Your task to perform on an android device: What's the news in Malaysia? Image 0: 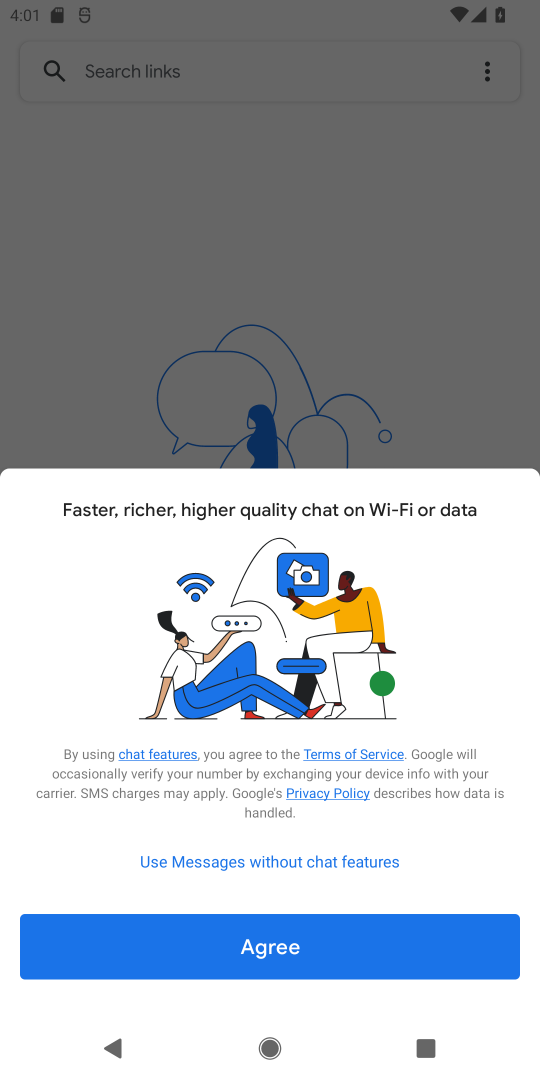
Step 0: click (176, 935)
Your task to perform on an android device: What's the news in Malaysia? Image 1: 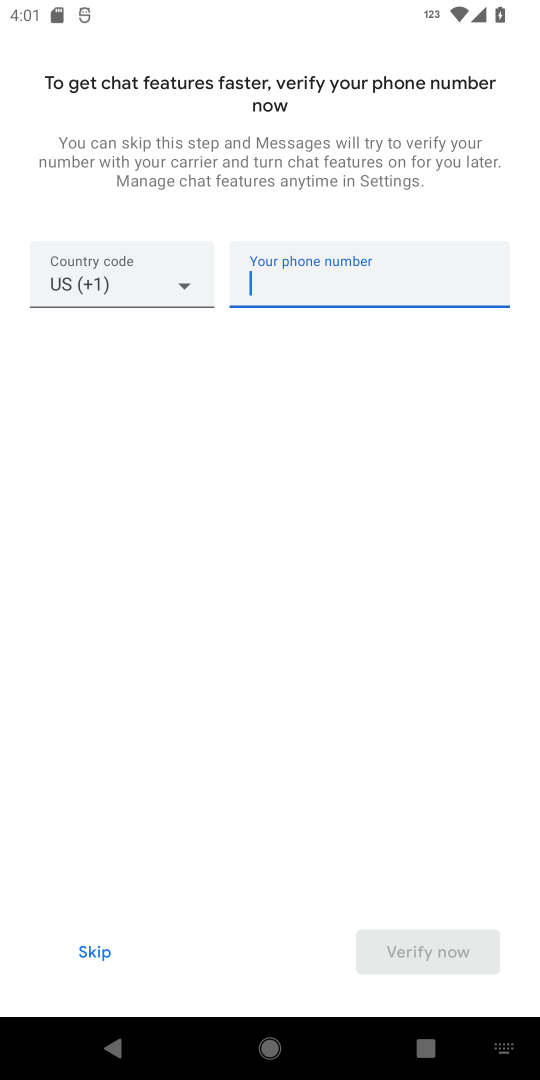
Step 1: click (87, 949)
Your task to perform on an android device: What's the news in Malaysia? Image 2: 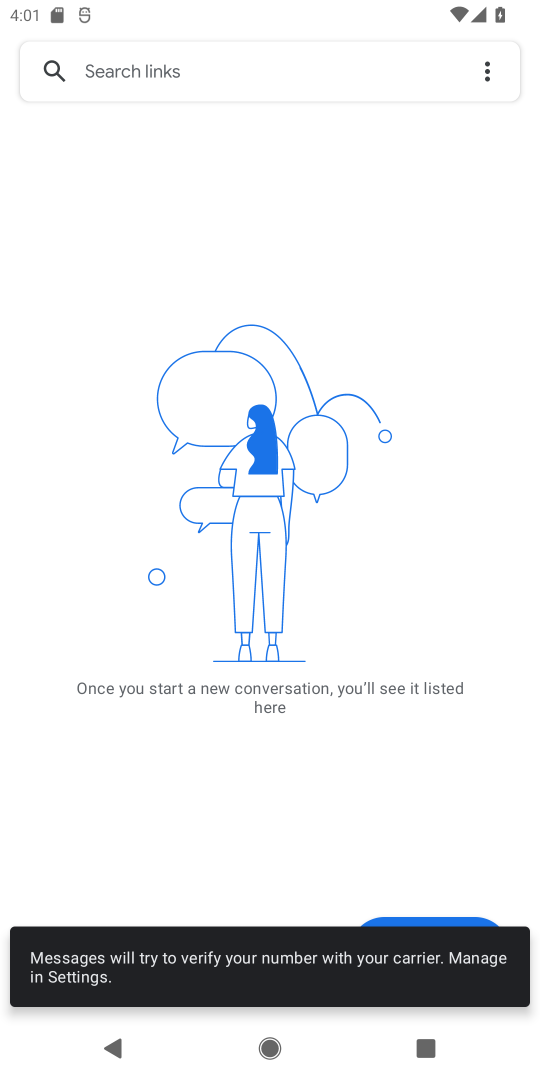
Step 2: press home button
Your task to perform on an android device: What's the news in Malaysia? Image 3: 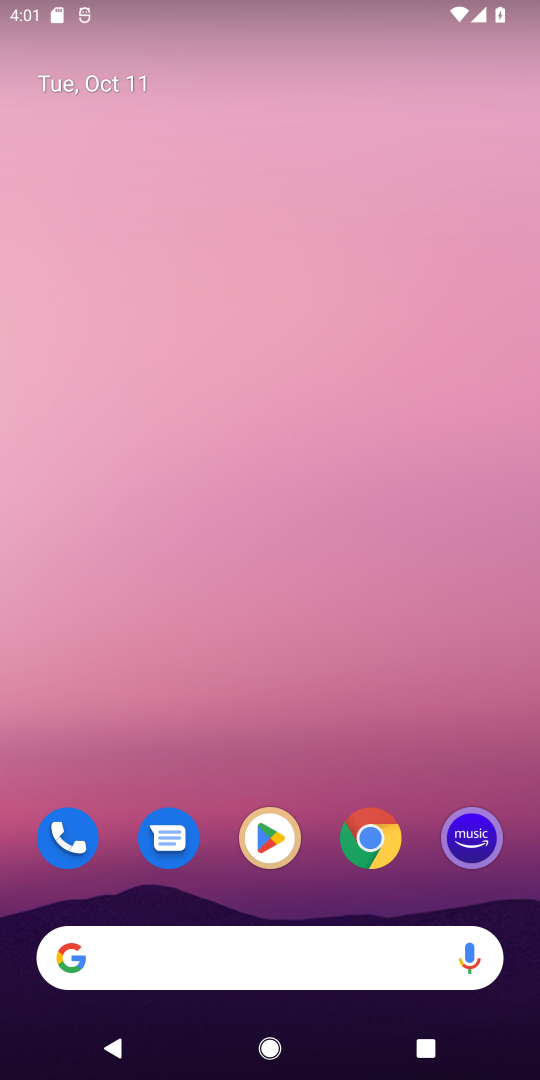
Step 3: click (370, 833)
Your task to perform on an android device: What's the news in Malaysia? Image 4: 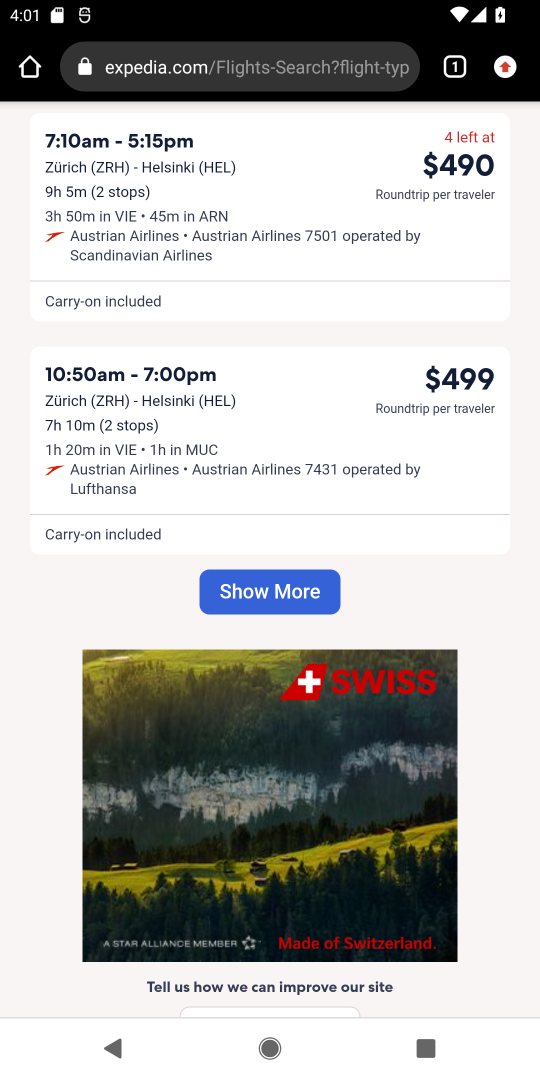
Step 4: click (156, 75)
Your task to perform on an android device: What's the news in Malaysia? Image 5: 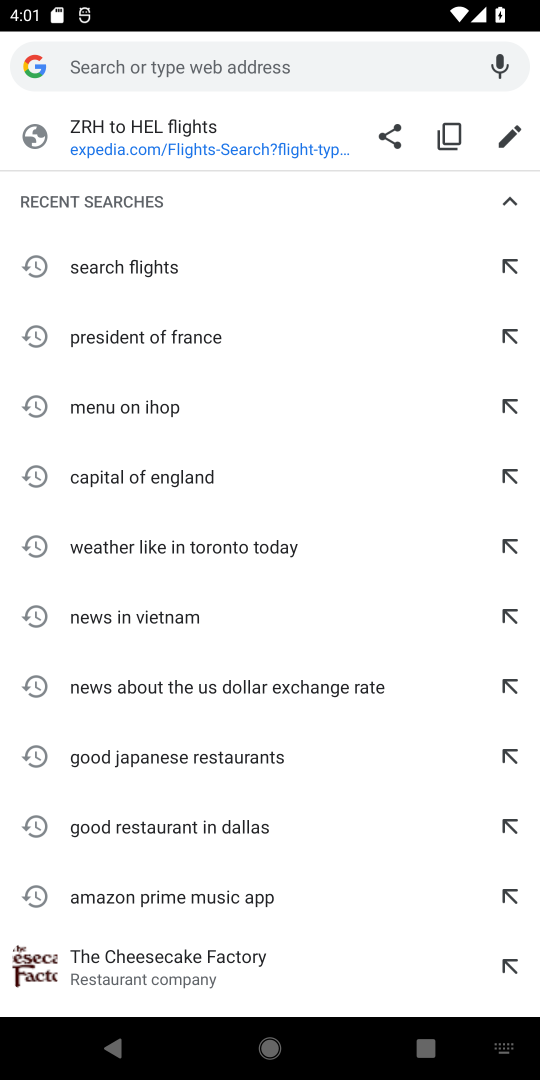
Step 5: type "news in malaysia"
Your task to perform on an android device: What's the news in Malaysia? Image 6: 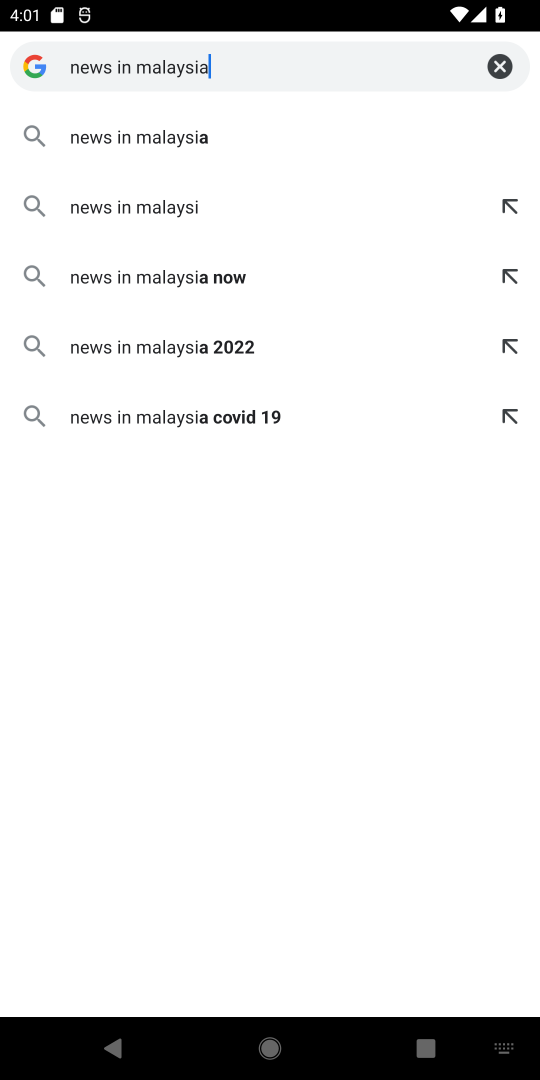
Step 6: type ""
Your task to perform on an android device: What's the news in Malaysia? Image 7: 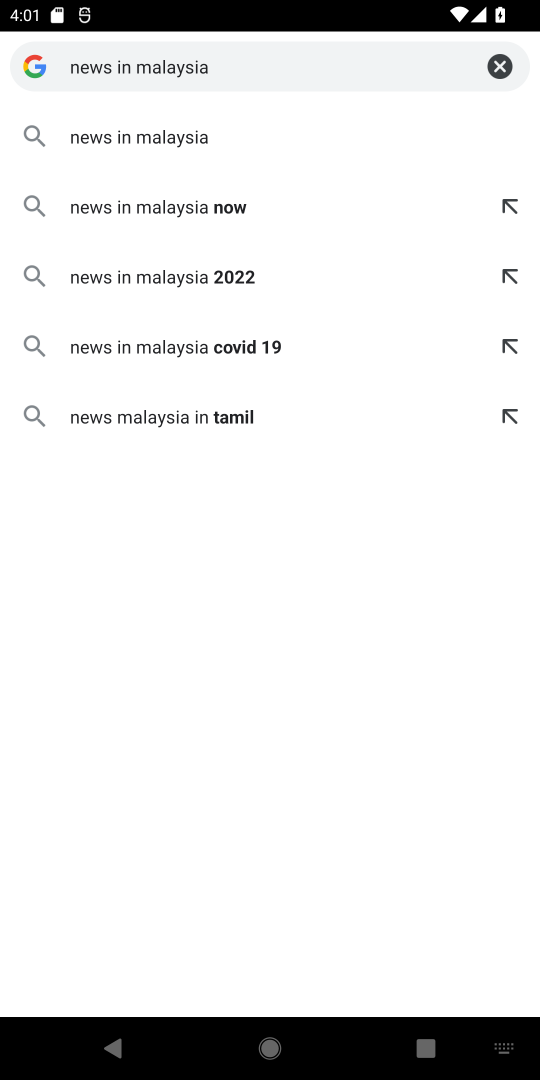
Step 7: click (200, 144)
Your task to perform on an android device: What's the news in Malaysia? Image 8: 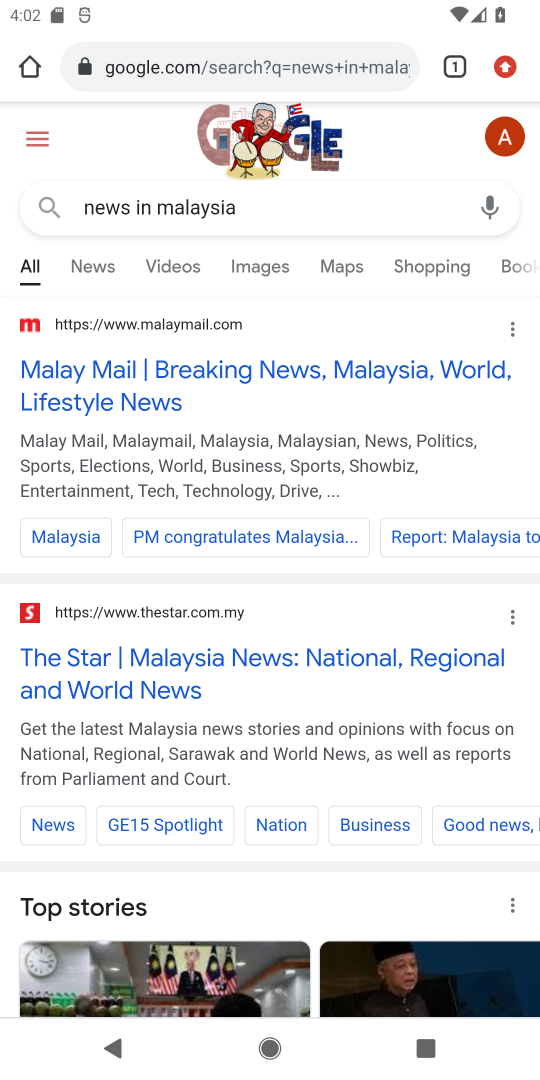
Step 8: click (170, 657)
Your task to perform on an android device: What's the news in Malaysia? Image 9: 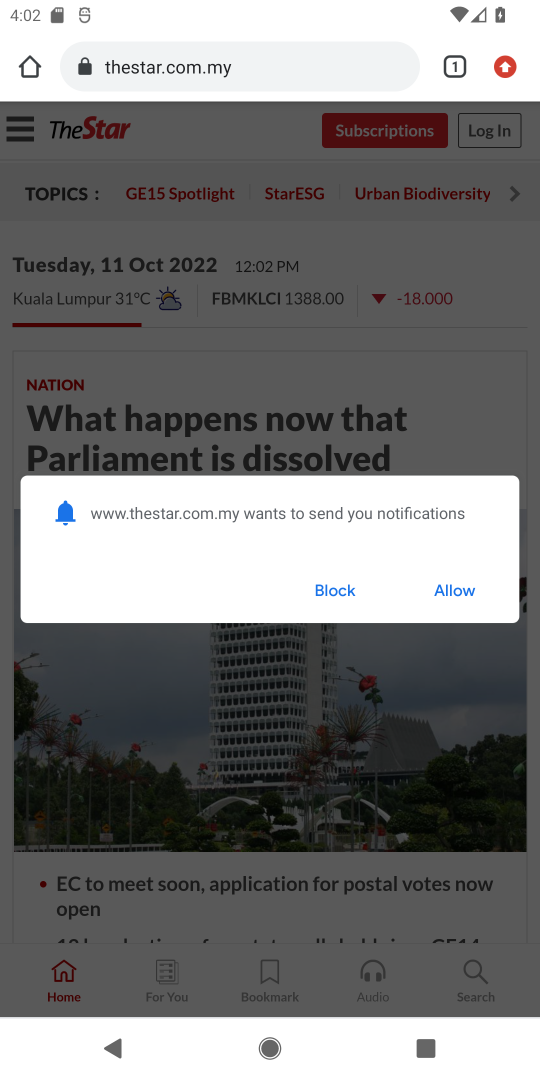
Step 9: click (335, 584)
Your task to perform on an android device: What's the news in Malaysia? Image 10: 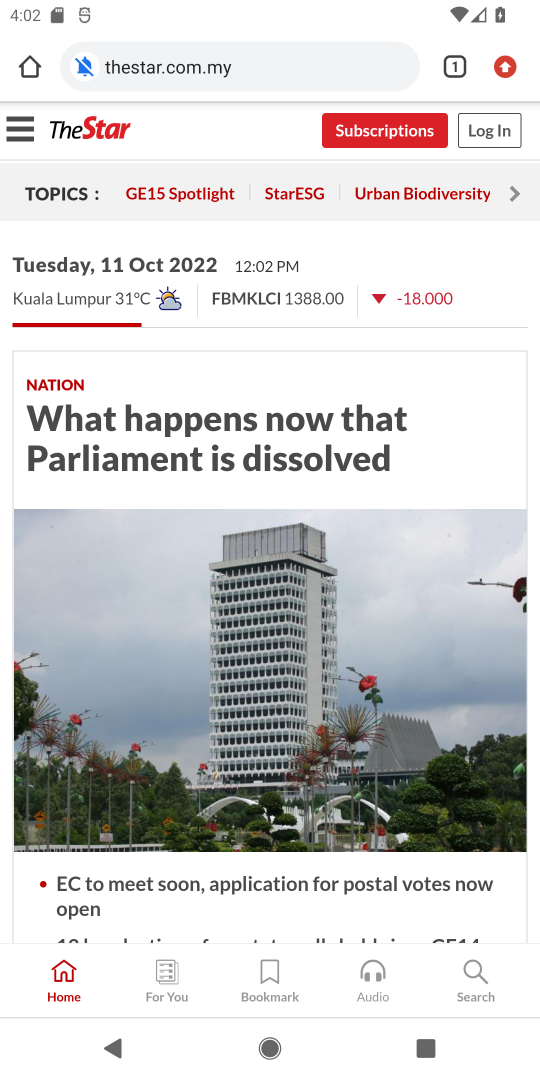
Step 10: drag from (227, 751) to (286, 220)
Your task to perform on an android device: What's the news in Malaysia? Image 11: 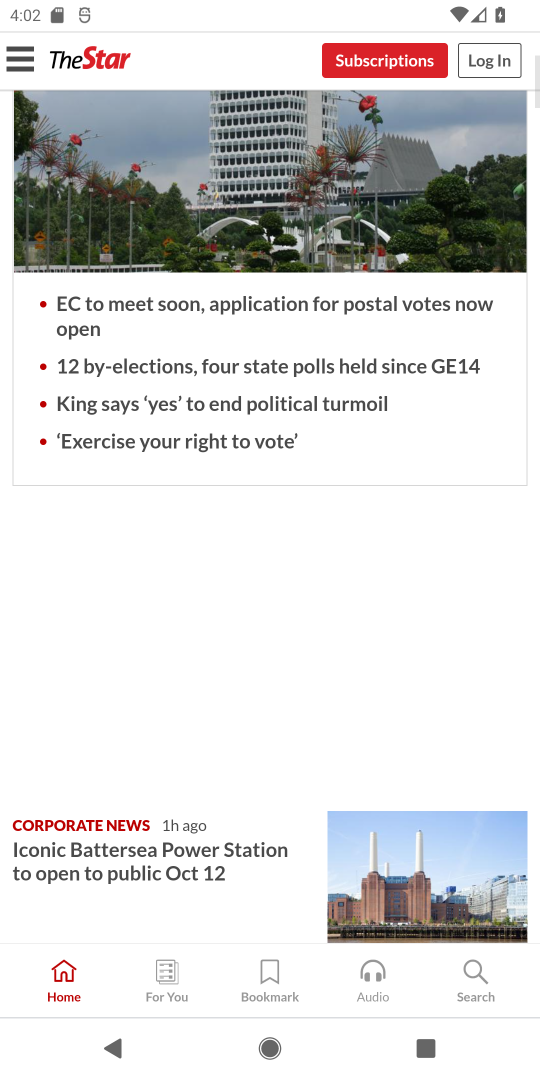
Step 11: drag from (212, 646) to (297, 265)
Your task to perform on an android device: What's the news in Malaysia? Image 12: 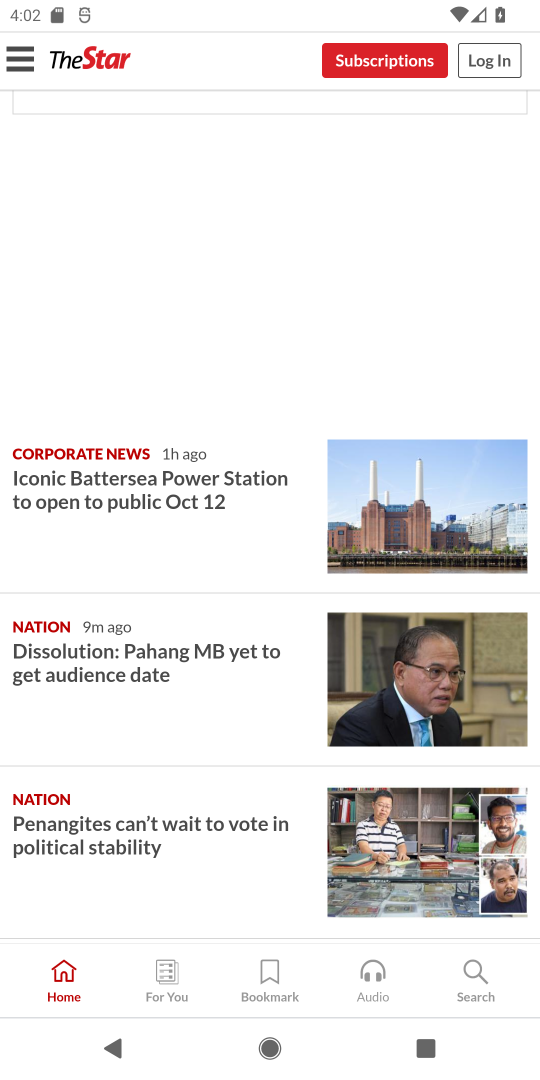
Step 12: drag from (212, 705) to (263, 307)
Your task to perform on an android device: What's the news in Malaysia? Image 13: 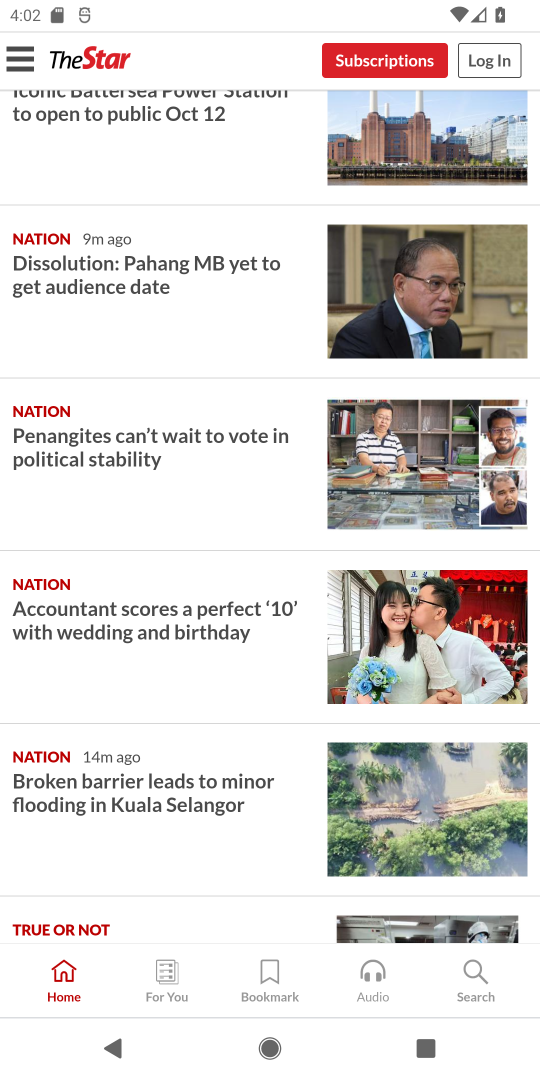
Step 13: drag from (217, 708) to (248, 371)
Your task to perform on an android device: What's the news in Malaysia? Image 14: 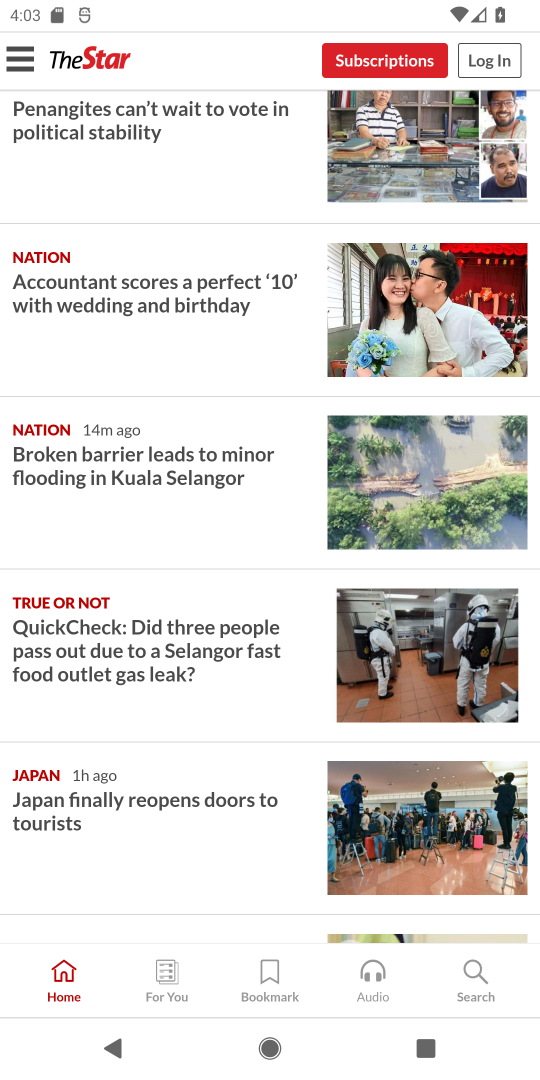
Step 14: drag from (207, 670) to (237, 95)
Your task to perform on an android device: What's the news in Malaysia? Image 15: 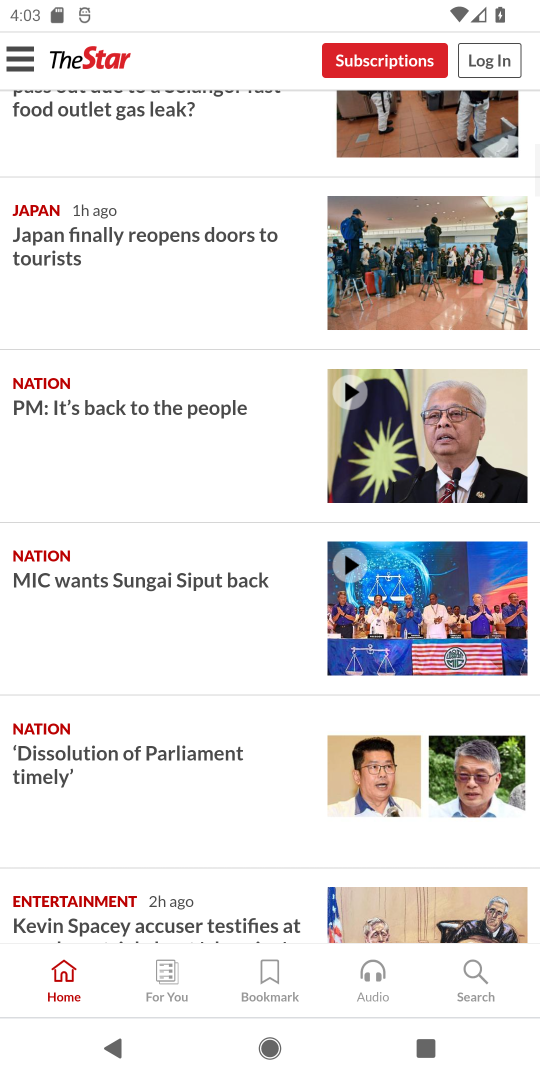
Step 15: drag from (205, 699) to (233, 249)
Your task to perform on an android device: What's the news in Malaysia? Image 16: 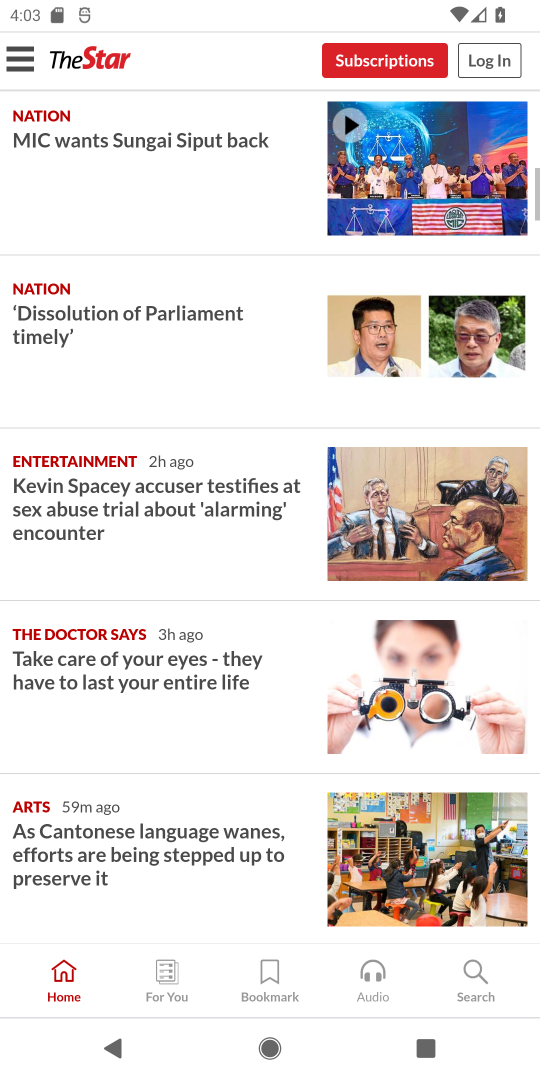
Step 16: drag from (201, 875) to (247, 318)
Your task to perform on an android device: What's the news in Malaysia? Image 17: 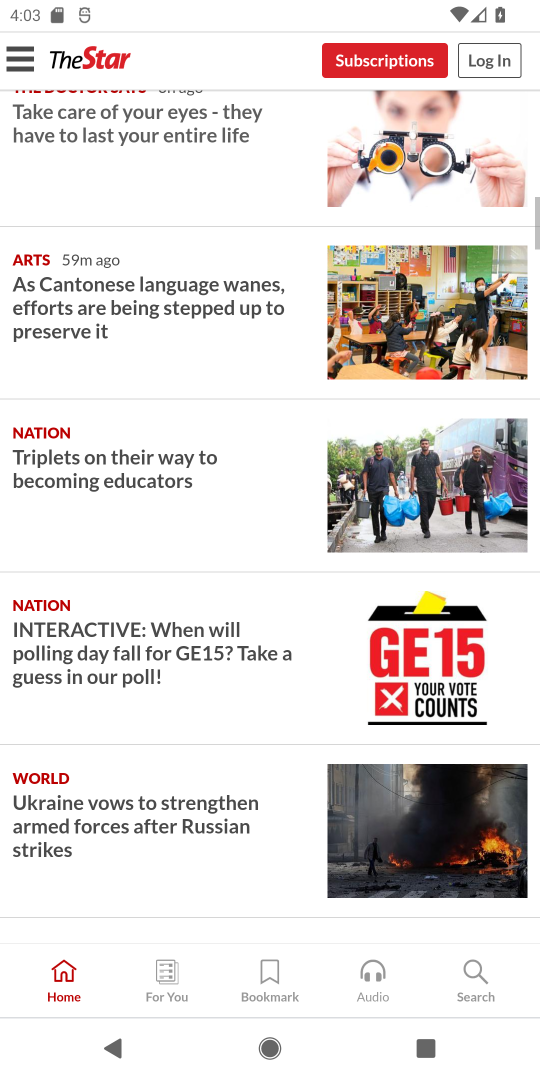
Step 17: drag from (213, 862) to (245, 210)
Your task to perform on an android device: What's the news in Malaysia? Image 18: 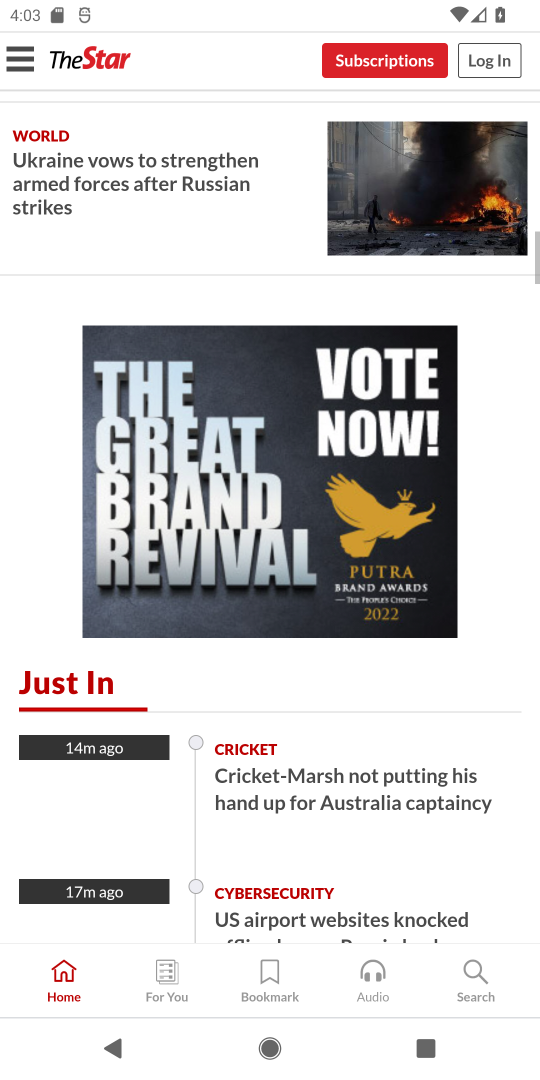
Step 18: drag from (116, 659) to (150, 340)
Your task to perform on an android device: What's the news in Malaysia? Image 19: 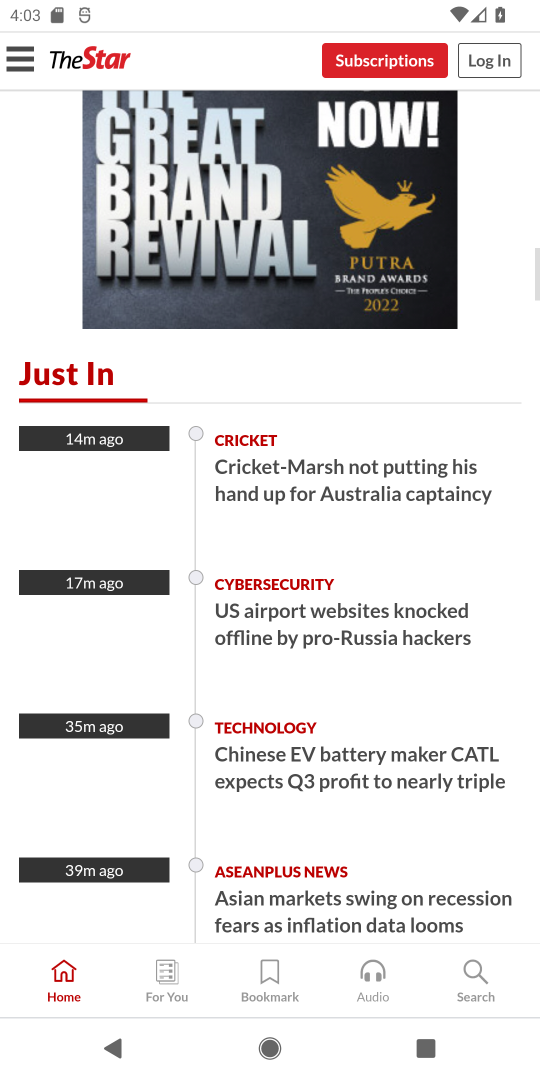
Step 19: drag from (255, 631) to (268, 547)
Your task to perform on an android device: What's the news in Malaysia? Image 20: 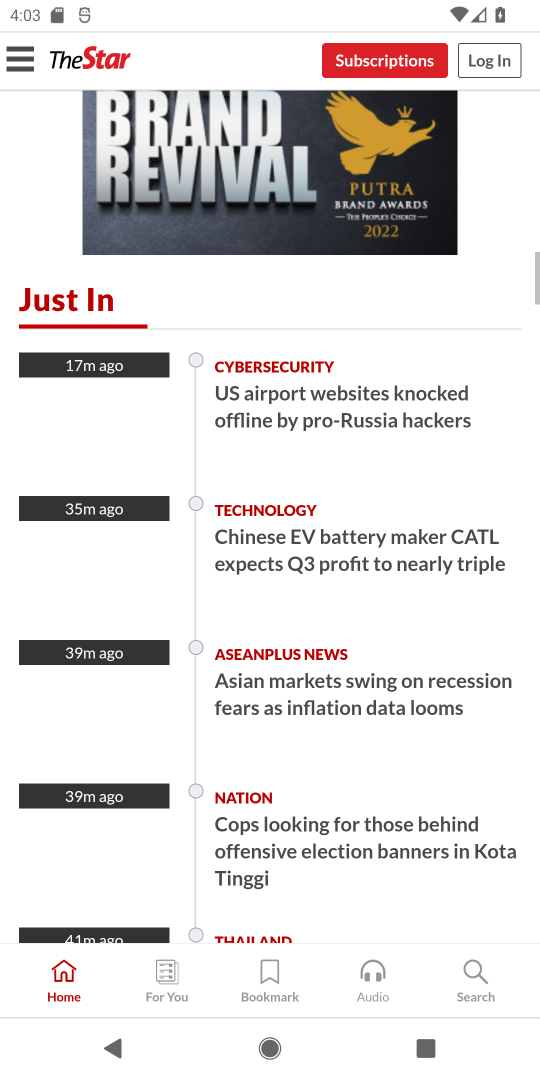
Step 20: drag from (329, 536) to (378, 1074)
Your task to perform on an android device: What's the news in Malaysia? Image 21: 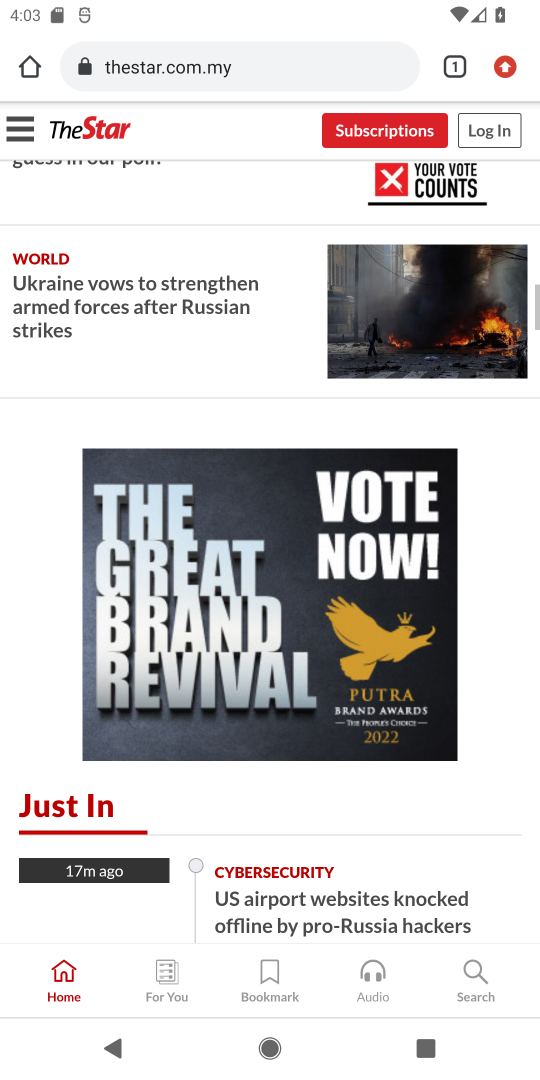
Step 21: drag from (351, 868) to (516, 1063)
Your task to perform on an android device: What's the news in Malaysia? Image 22: 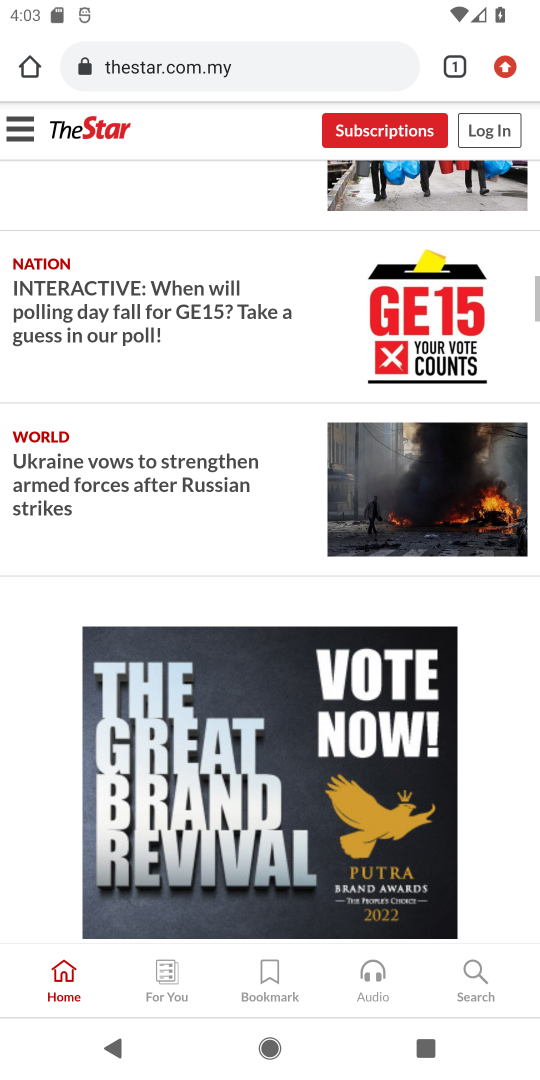
Step 22: drag from (368, 566) to (519, 1006)
Your task to perform on an android device: What's the news in Malaysia? Image 23: 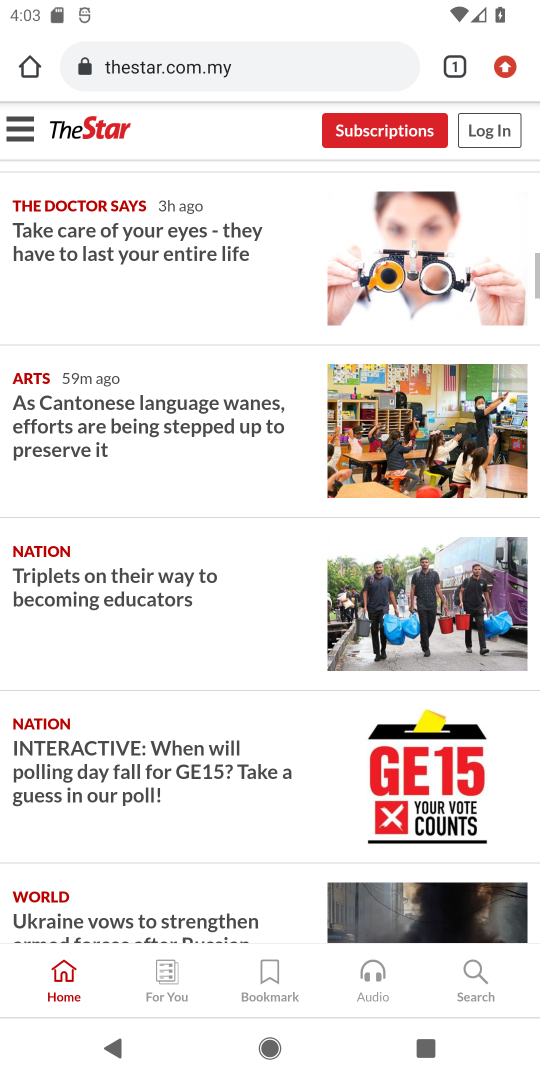
Step 23: drag from (220, 593) to (297, 831)
Your task to perform on an android device: What's the news in Malaysia? Image 24: 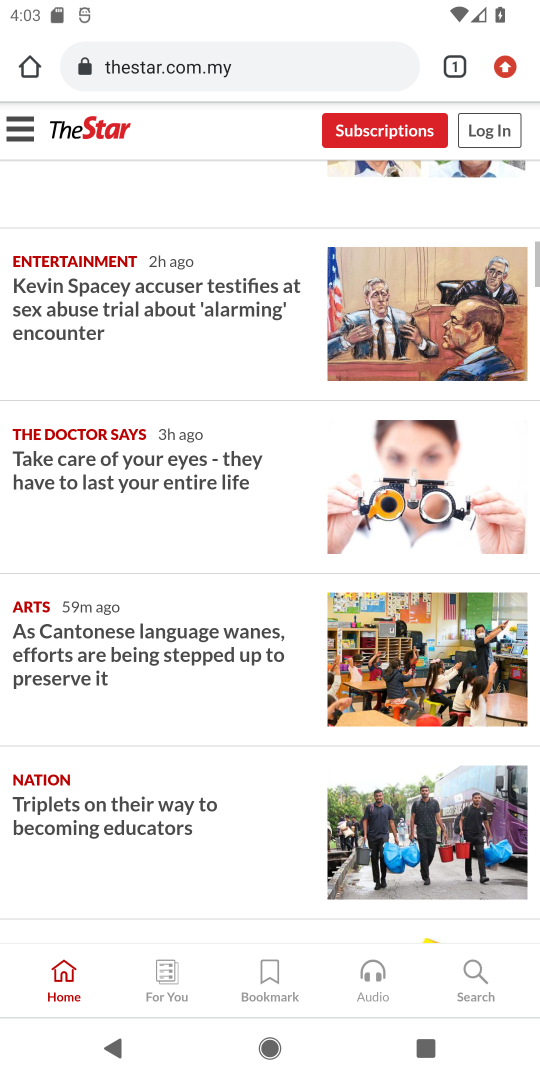
Step 24: drag from (283, 688) to (344, 854)
Your task to perform on an android device: What's the news in Malaysia? Image 25: 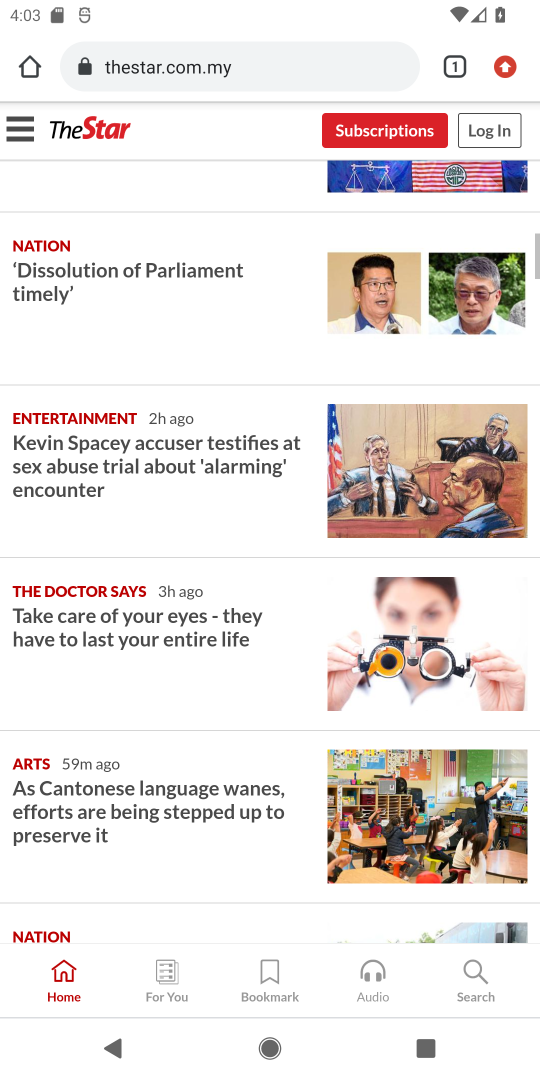
Step 25: drag from (214, 425) to (373, 997)
Your task to perform on an android device: What's the news in Malaysia? Image 26: 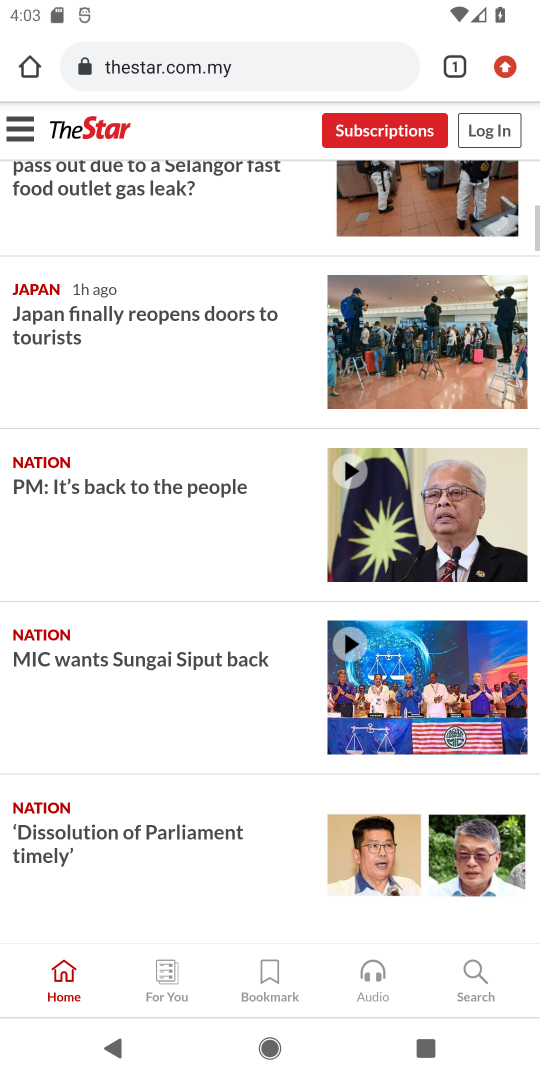
Step 26: drag from (57, 251) to (210, 668)
Your task to perform on an android device: What's the news in Malaysia? Image 27: 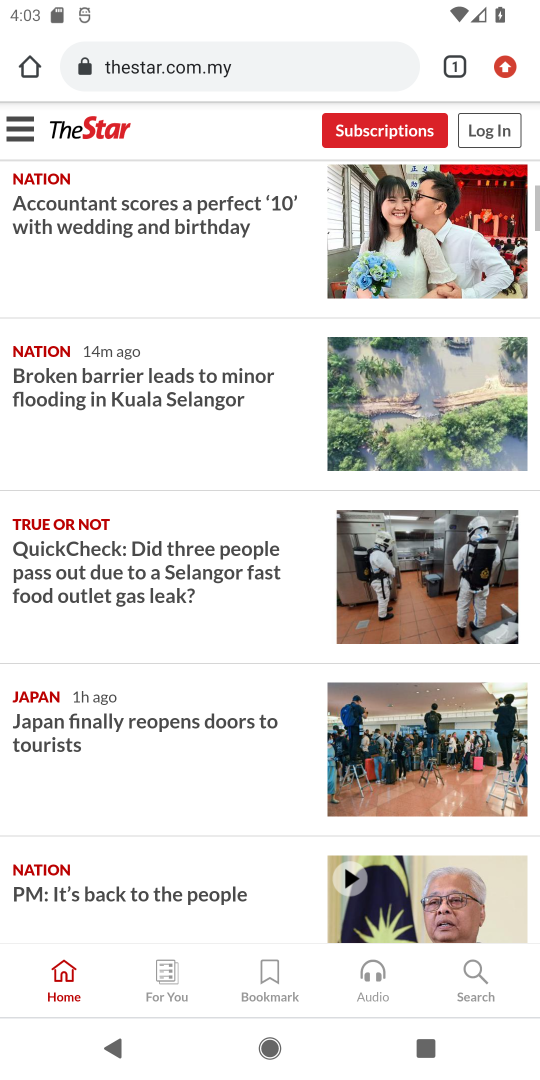
Step 27: drag from (219, 555) to (276, 864)
Your task to perform on an android device: What's the news in Malaysia? Image 28: 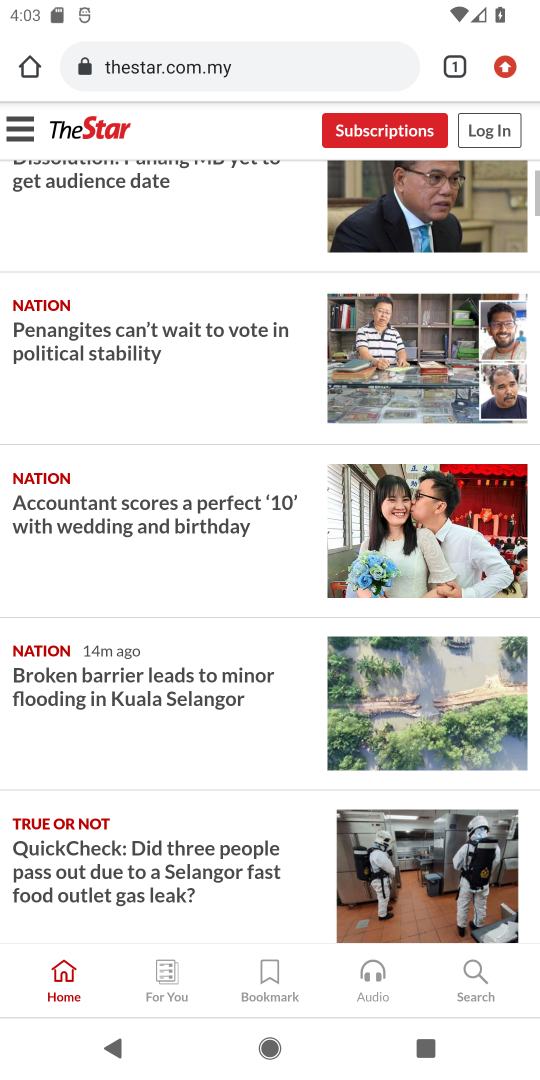
Step 28: drag from (139, 450) to (232, 864)
Your task to perform on an android device: What's the news in Malaysia? Image 29: 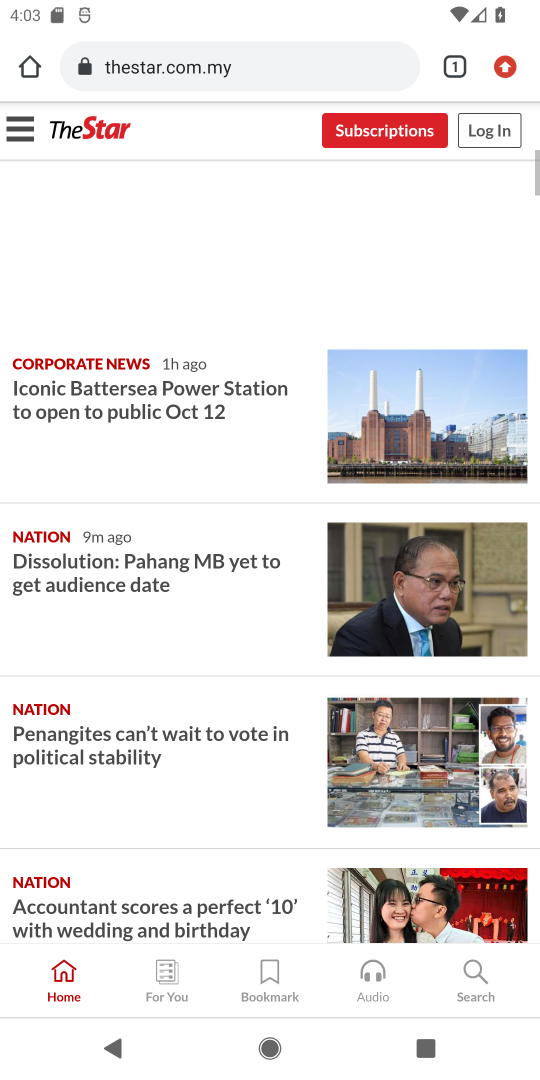
Step 29: drag from (167, 524) to (239, 906)
Your task to perform on an android device: What's the news in Malaysia? Image 30: 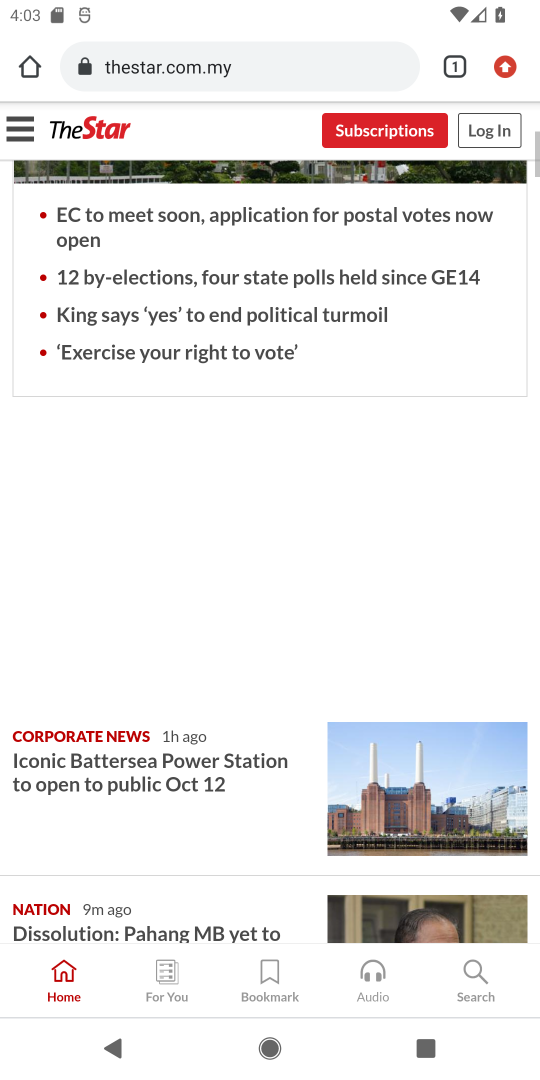
Step 30: drag from (29, 303) to (169, 1007)
Your task to perform on an android device: What's the news in Malaysia? Image 31: 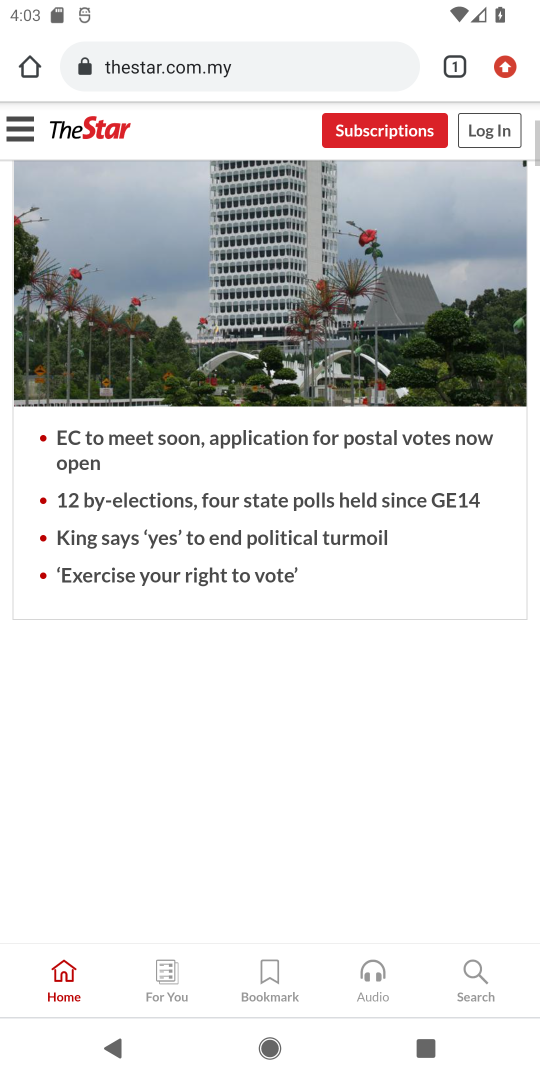
Step 31: drag from (132, 244) to (156, 910)
Your task to perform on an android device: What's the news in Malaysia? Image 32: 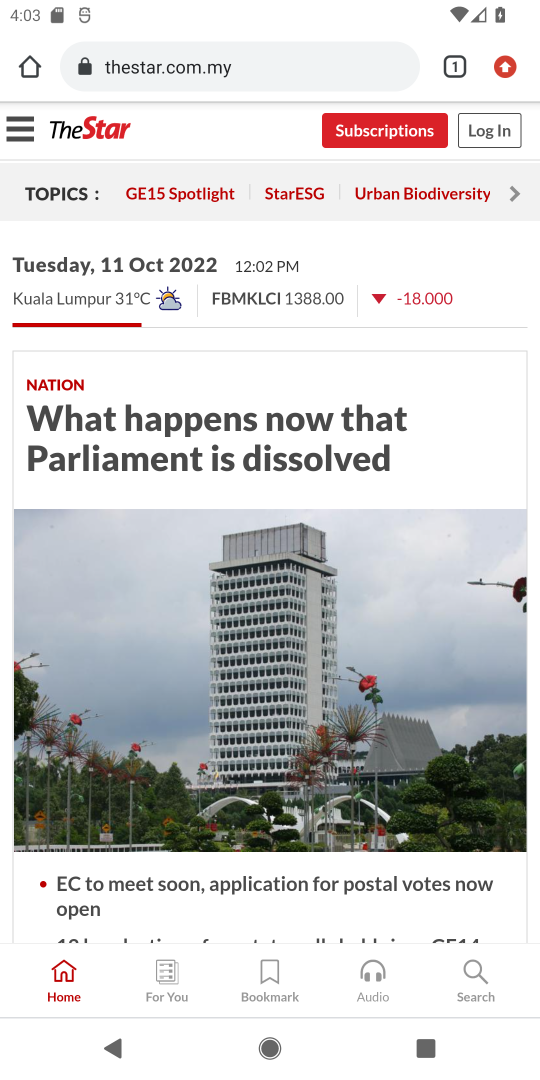
Step 32: click (237, 66)
Your task to perform on an android device: What's the news in Malaysia? Image 33: 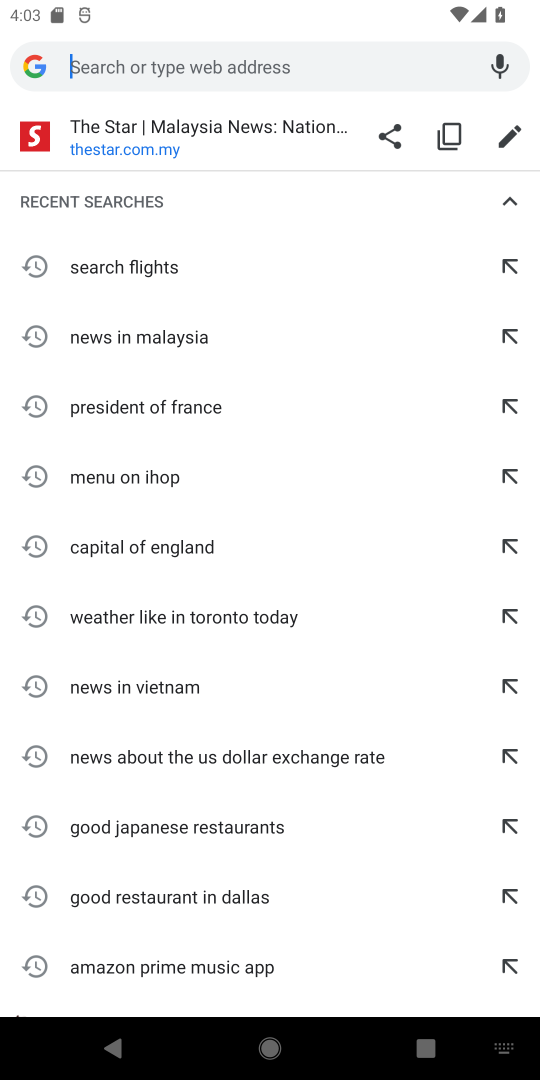
Step 33: type "malaysia news"
Your task to perform on an android device: What's the news in Malaysia? Image 34: 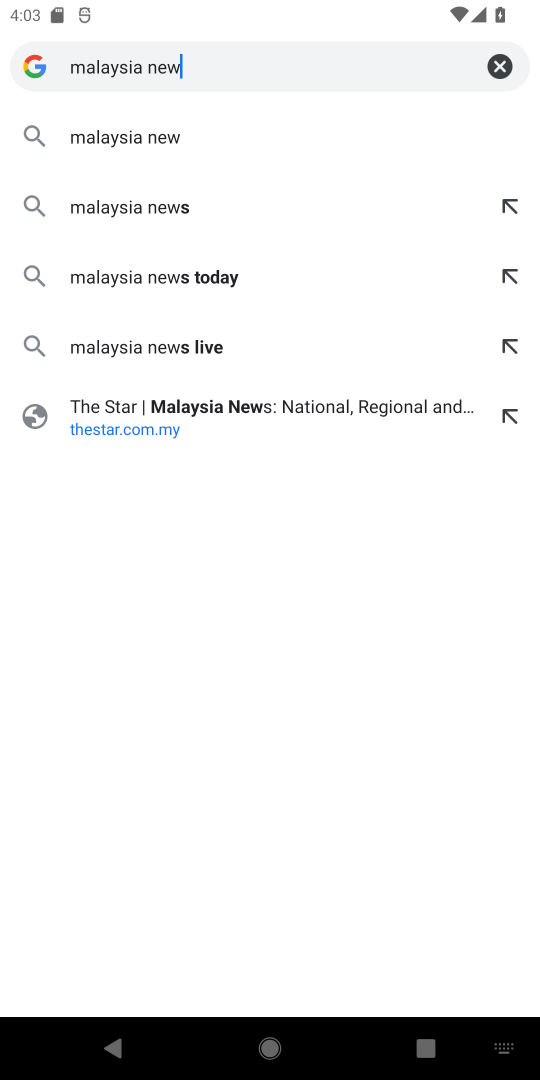
Step 34: type ""
Your task to perform on an android device: What's the news in Malaysia? Image 35: 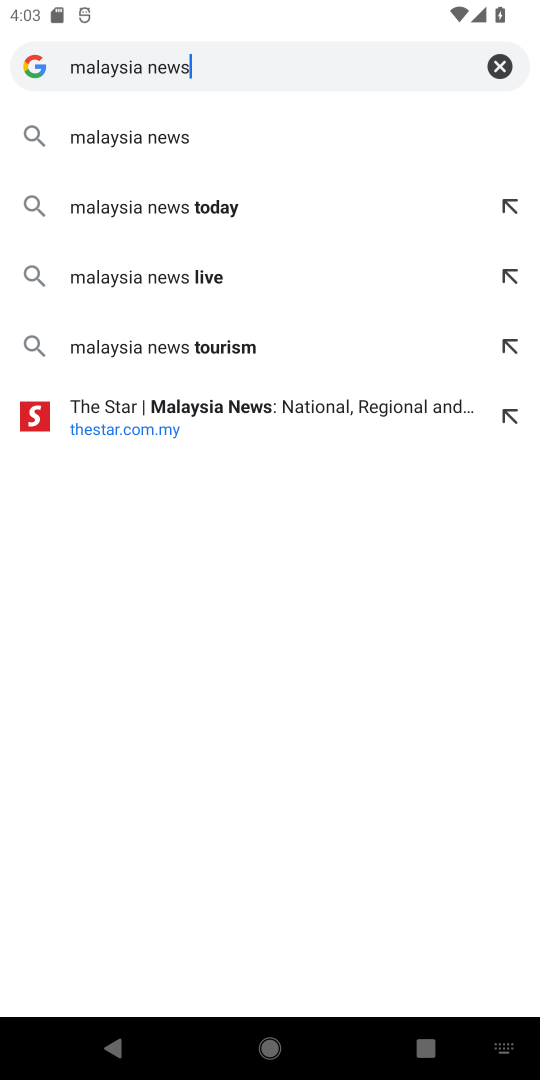
Step 35: click (127, 127)
Your task to perform on an android device: What's the news in Malaysia? Image 36: 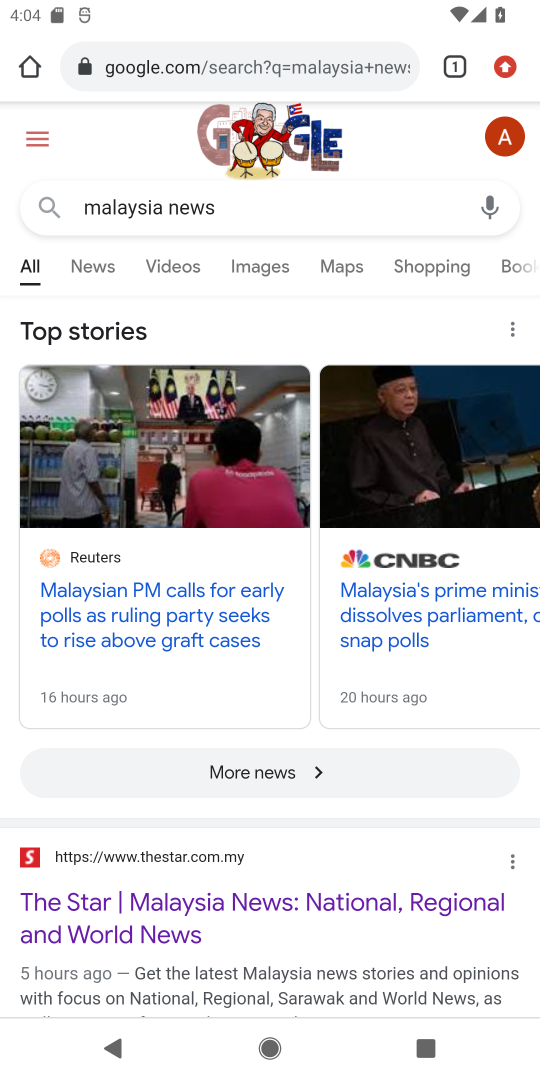
Step 36: click (162, 893)
Your task to perform on an android device: What's the news in Malaysia? Image 37: 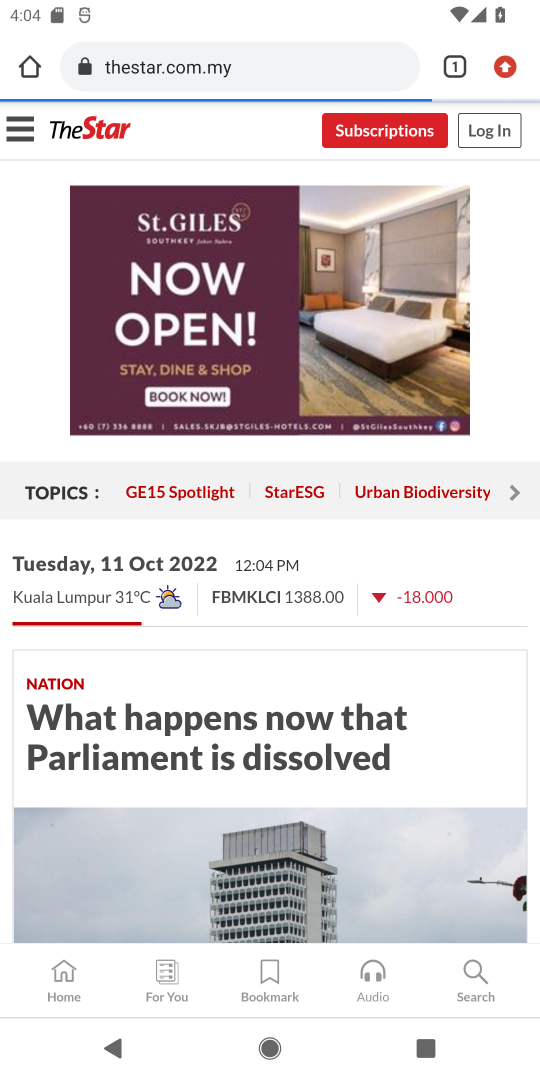
Step 37: task complete